Your task to perform on an android device: Open settings Image 0: 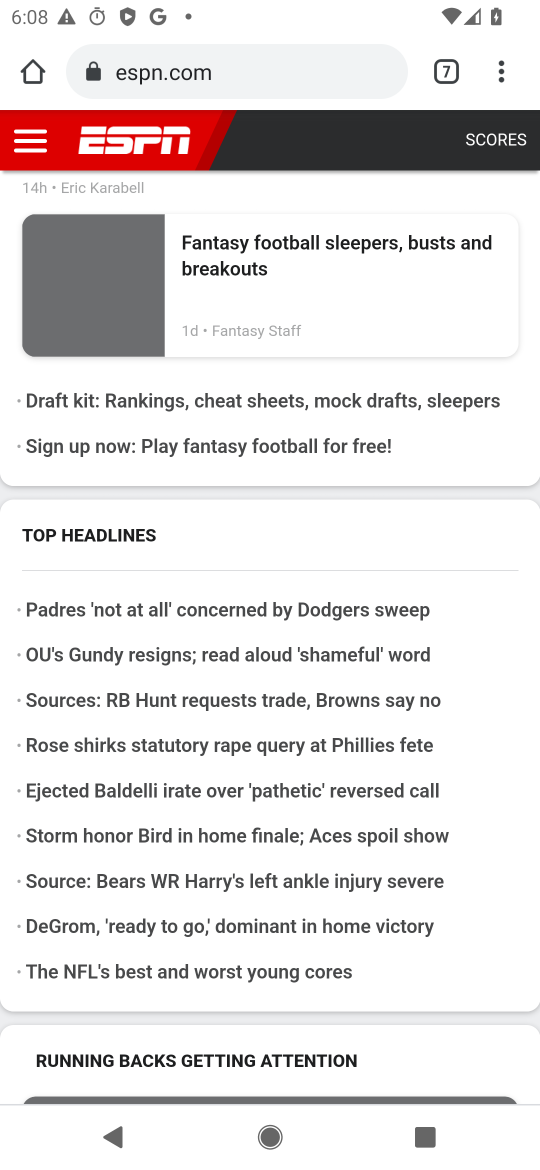
Step 0: press home button
Your task to perform on an android device: Open settings Image 1: 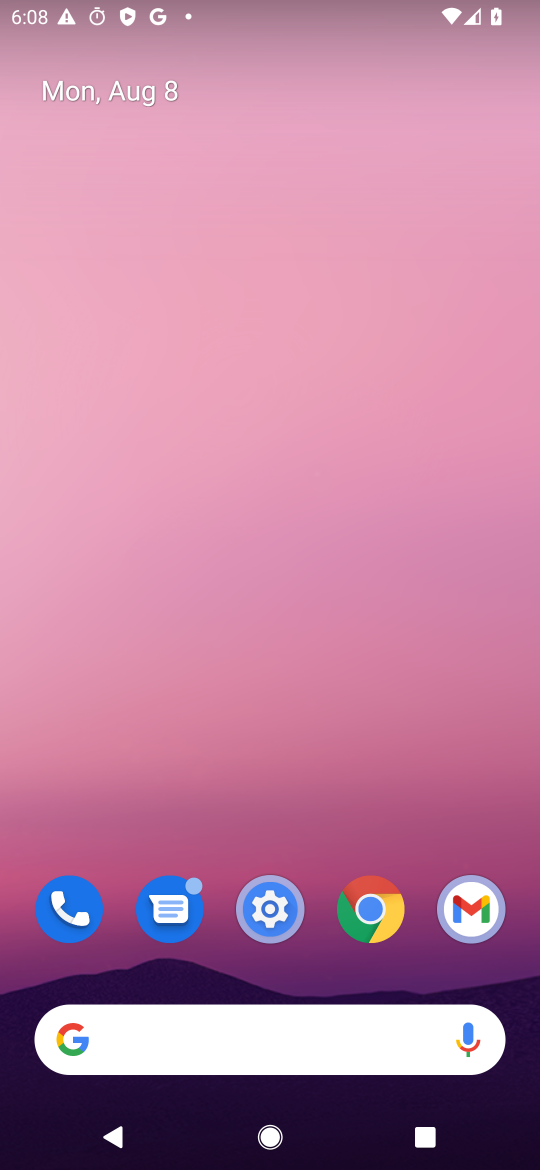
Step 1: click (265, 914)
Your task to perform on an android device: Open settings Image 2: 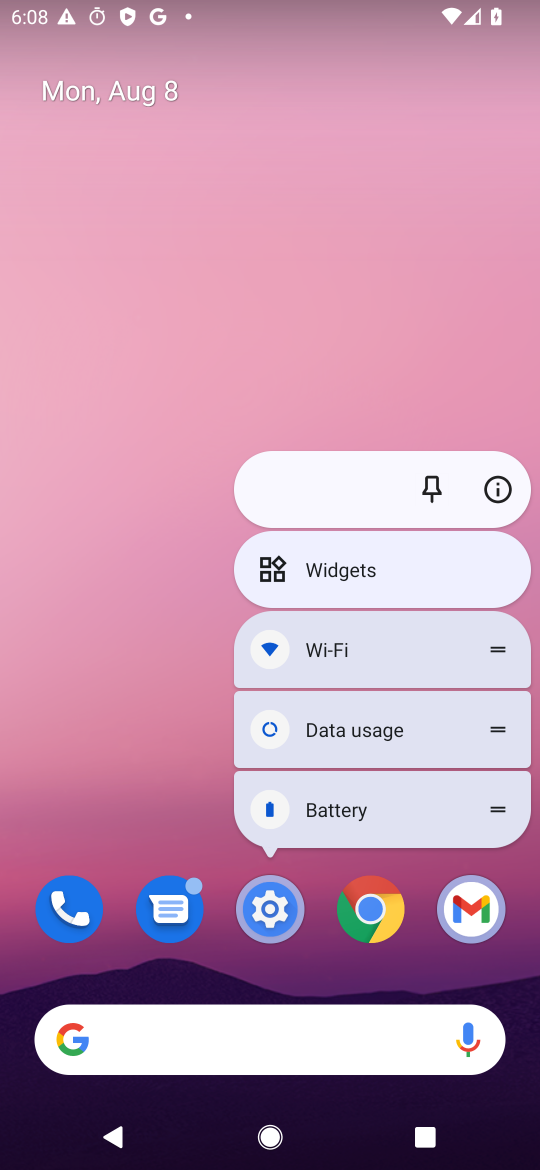
Step 2: click (267, 906)
Your task to perform on an android device: Open settings Image 3: 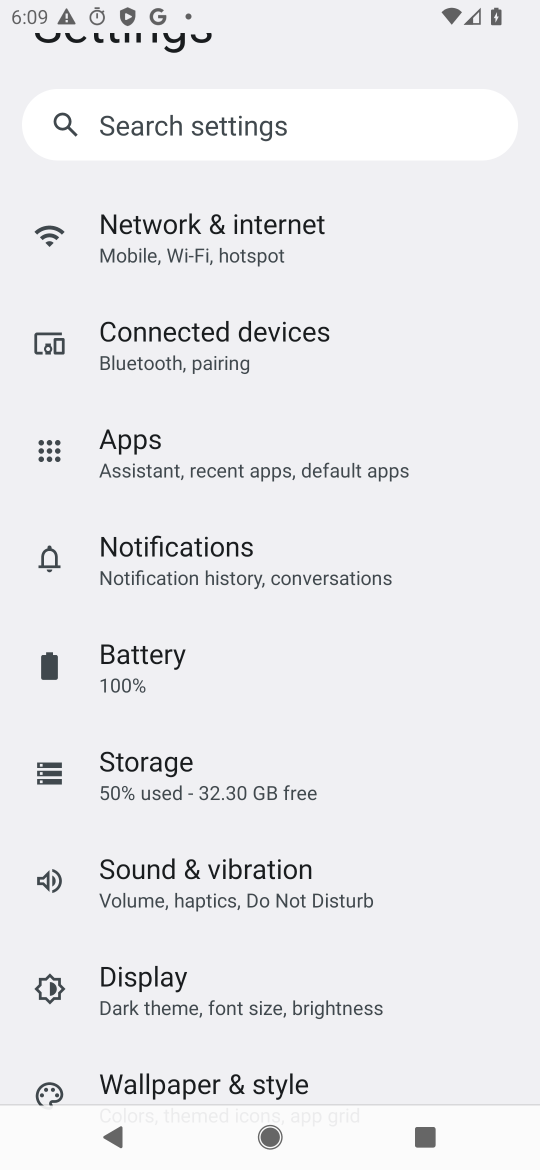
Step 3: task complete